Your task to perform on an android device: all mails in gmail Image 0: 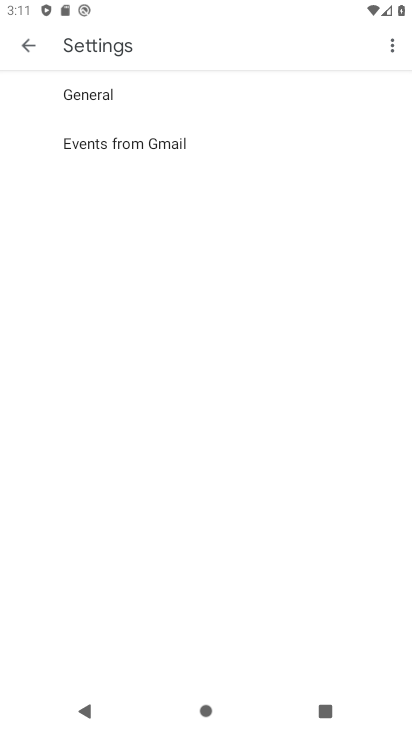
Step 0: press back button
Your task to perform on an android device: all mails in gmail Image 1: 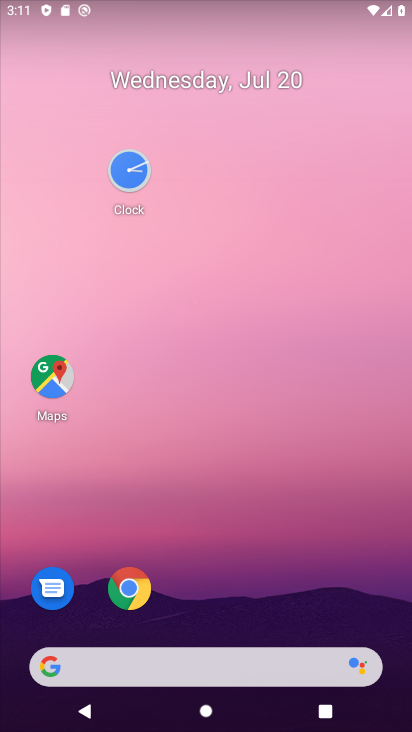
Step 1: drag from (224, 547) to (280, 87)
Your task to perform on an android device: all mails in gmail Image 2: 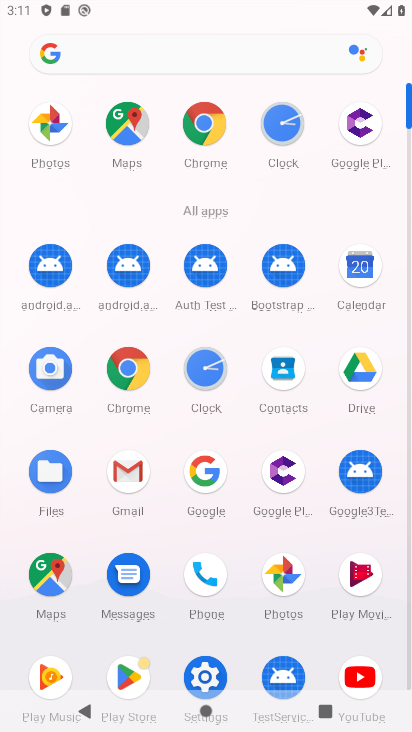
Step 2: drag from (115, 476) to (67, 254)
Your task to perform on an android device: all mails in gmail Image 3: 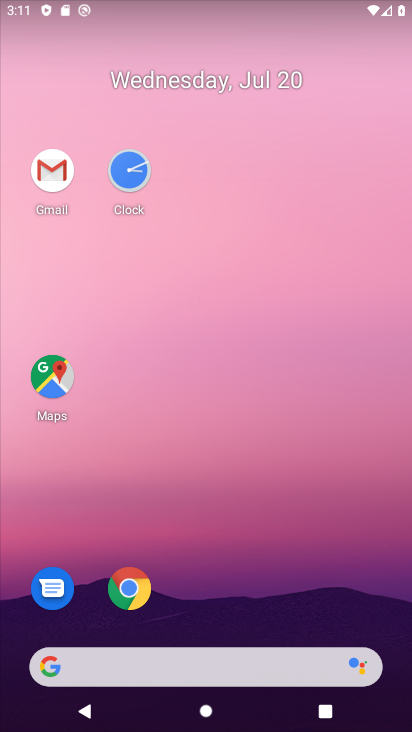
Step 3: click (53, 176)
Your task to perform on an android device: all mails in gmail Image 4: 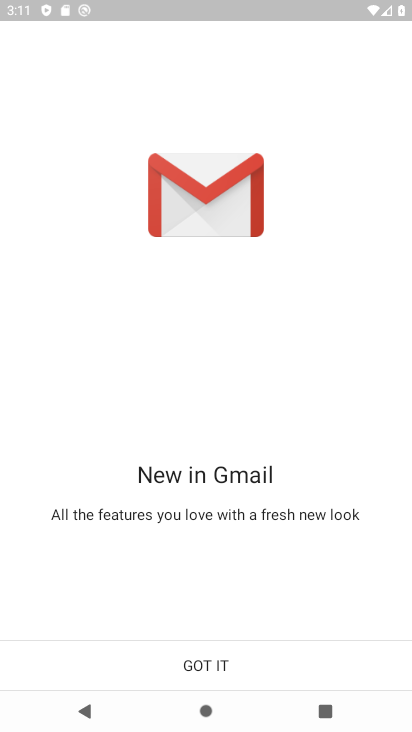
Step 4: click (217, 661)
Your task to perform on an android device: all mails in gmail Image 5: 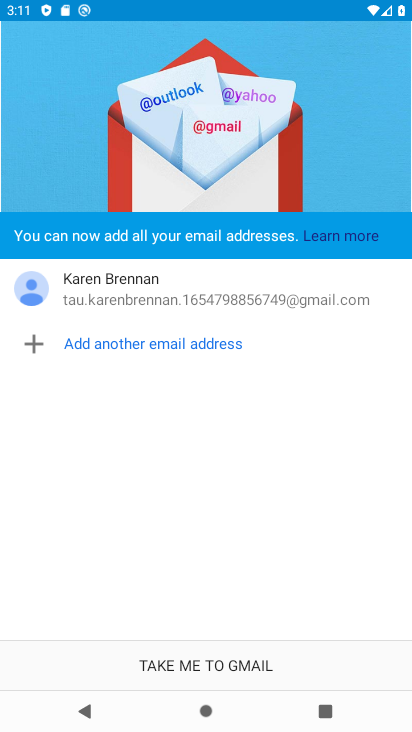
Step 5: click (213, 648)
Your task to perform on an android device: all mails in gmail Image 6: 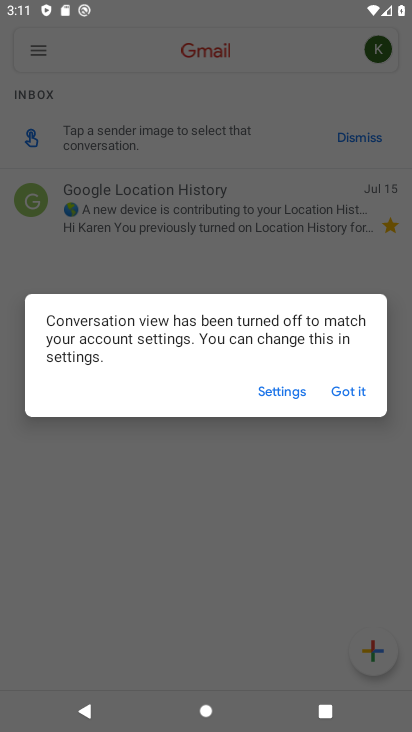
Step 6: click (341, 390)
Your task to perform on an android device: all mails in gmail Image 7: 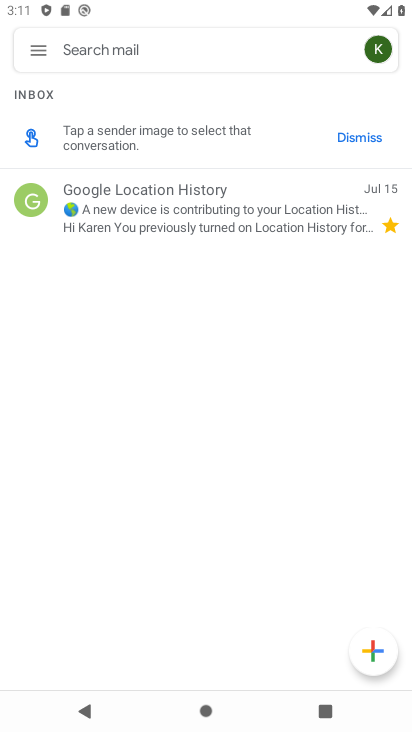
Step 7: task complete